Your task to perform on an android device: Go to wifi settings Image 0: 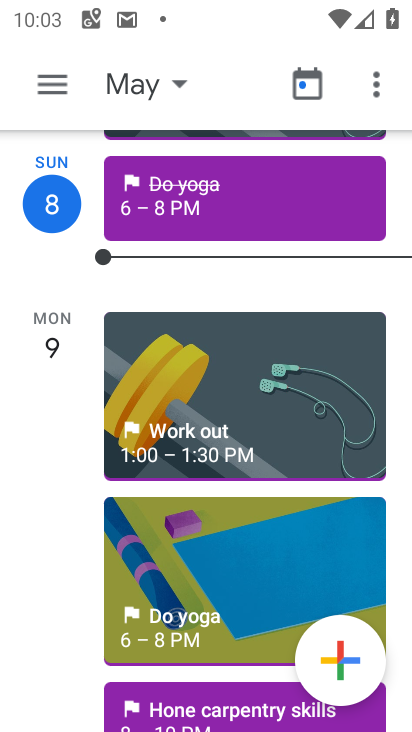
Step 0: press home button
Your task to perform on an android device: Go to wifi settings Image 1: 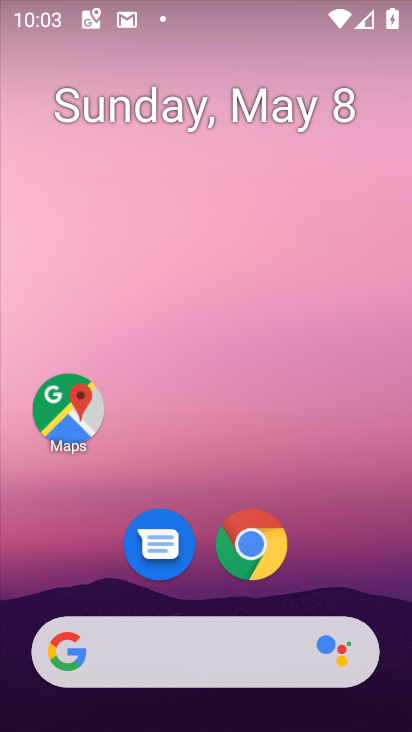
Step 1: drag from (327, 531) to (345, 316)
Your task to perform on an android device: Go to wifi settings Image 2: 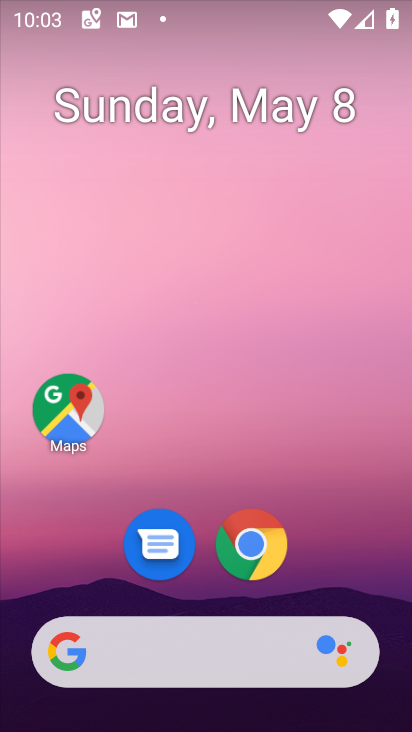
Step 2: drag from (330, 536) to (309, 157)
Your task to perform on an android device: Go to wifi settings Image 3: 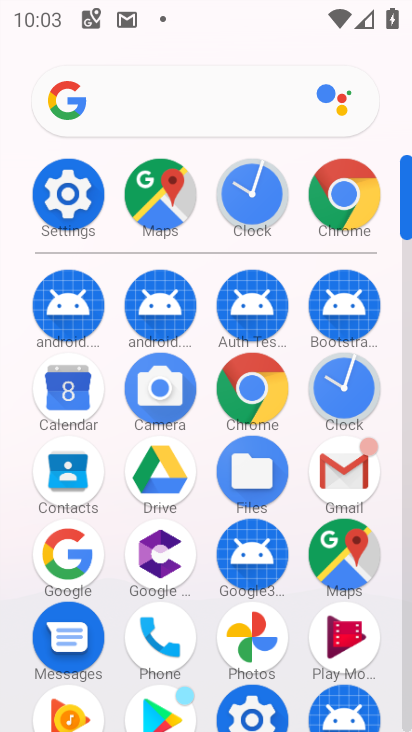
Step 3: click (82, 221)
Your task to perform on an android device: Go to wifi settings Image 4: 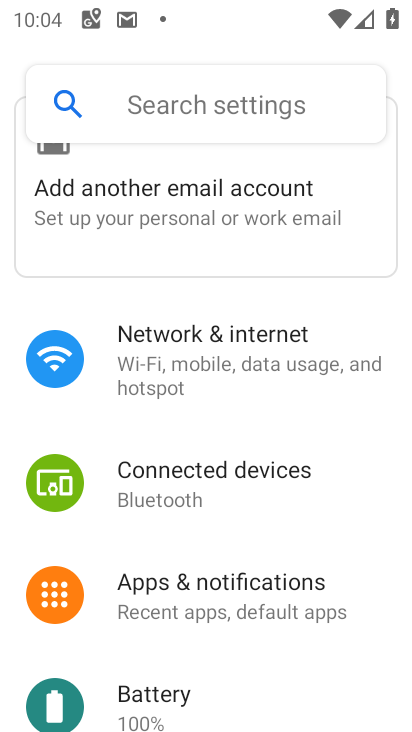
Step 4: click (249, 403)
Your task to perform on an android device: Go to wifi settings Image 5: 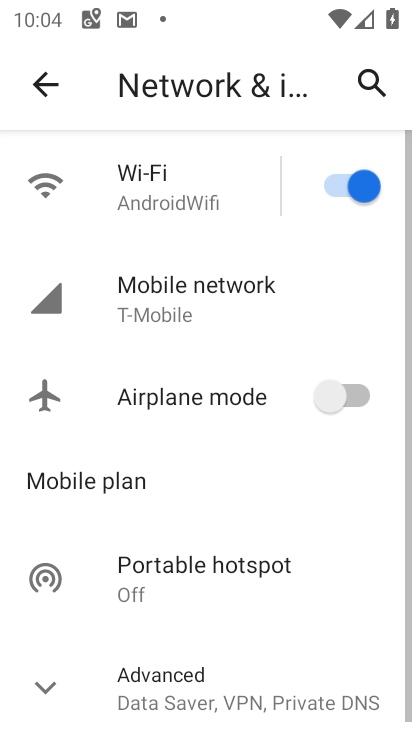
Step 5: click (342, 192)
Your task to perform on an android device: Go to wifi settings Image 6: 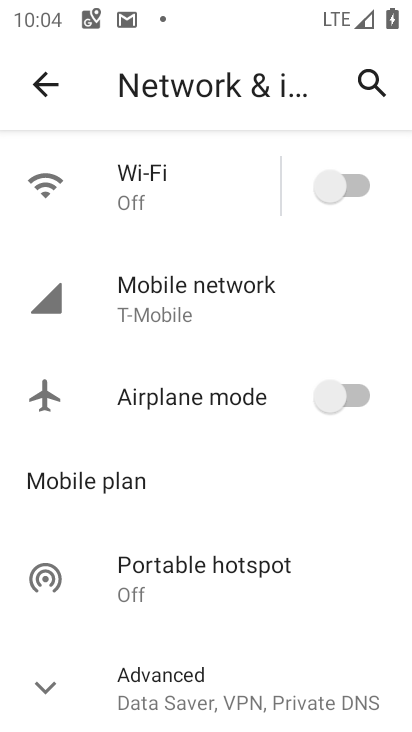
Step 6: click (349, 190)
Your task to perform on an android device: Go to wifi settings Image 7: 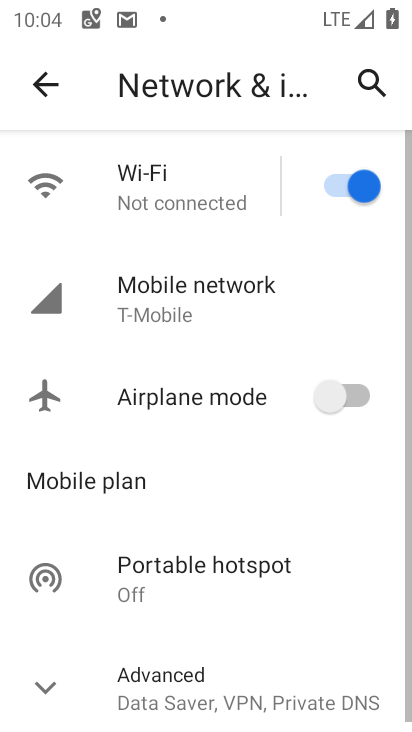
Step 7: click (180, 205)
Your task to perform on an android device: Go to wifi settings Image 8: 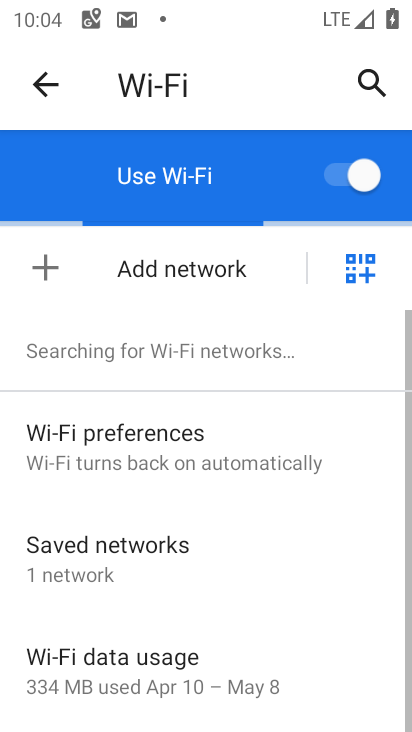
Step 8: task complete